Your task to perform on an android device: What's the weather today? Image 0: 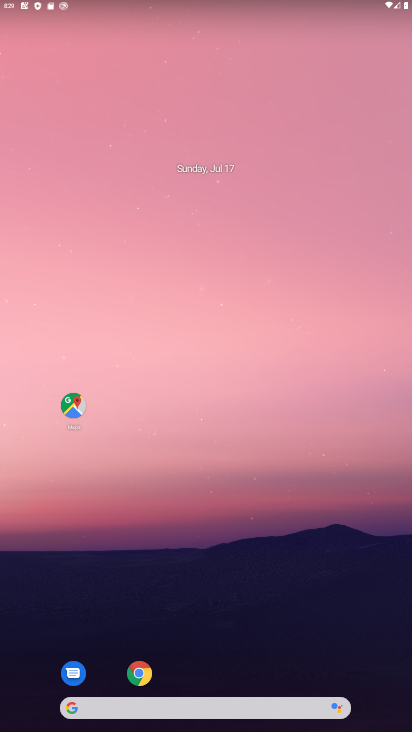
Step 0: drag from (264, 655) to (257, 48)
Your task to perform on an android device: What's the weather today? Image 1: 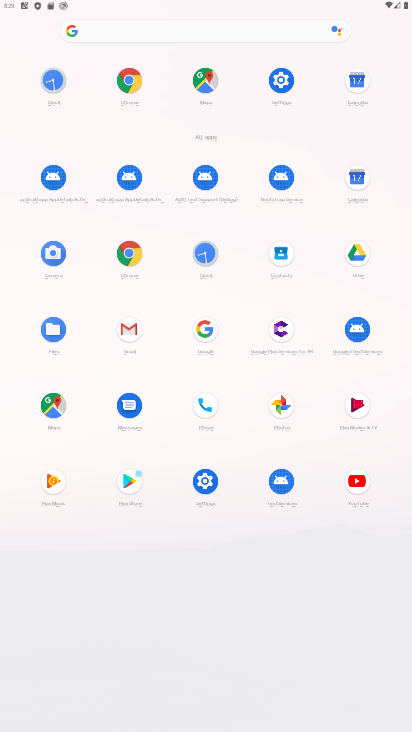
Step 1: click (131, 248)
Your task to perform on an android device: What's the weather today? Image 2: 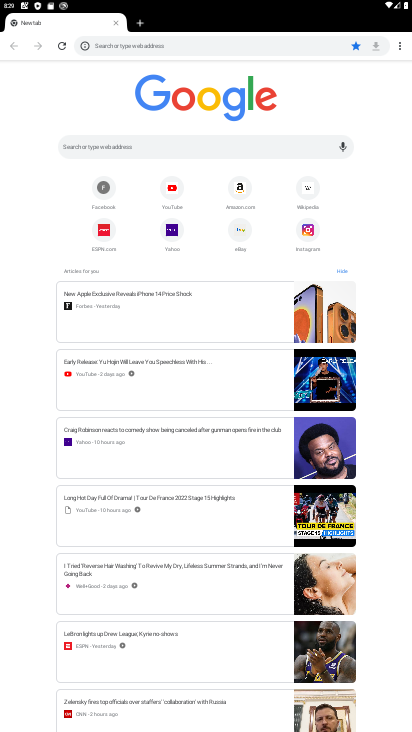
Step 2: click (177, 47)
Your task to perform on an android device: What's the weather today? Image 3: 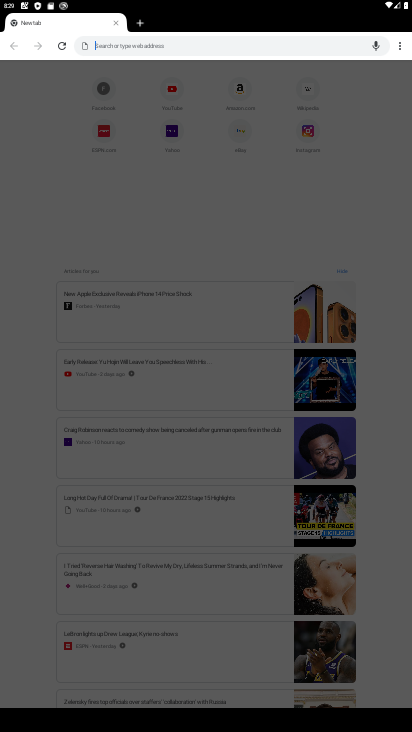
Step 3: type "weather"
Your task to perform on an android device: What's the weather today? Image 4: 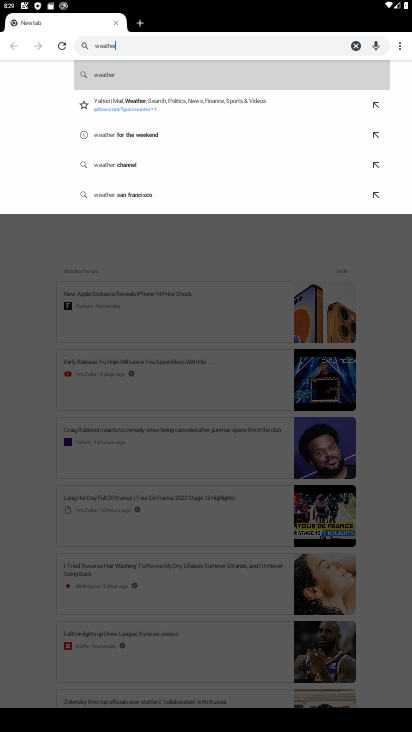
Step 4: click (125, 76)
Your task to perform on an android device: What's the weather today? Image 5: 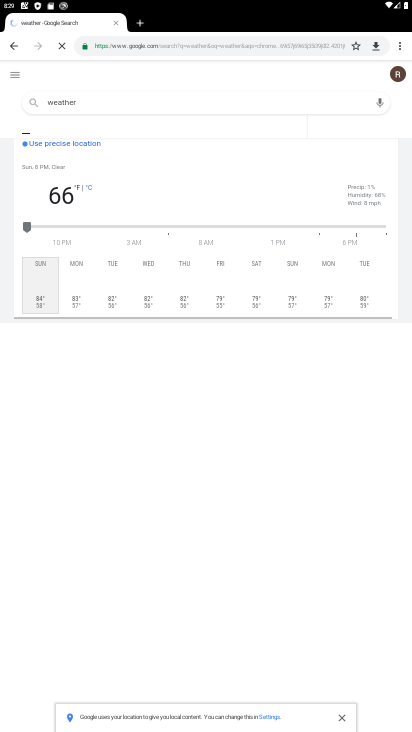
Step 5: task complete